Your task to perform on an android device: toggle translation in the chrome app Image 0: 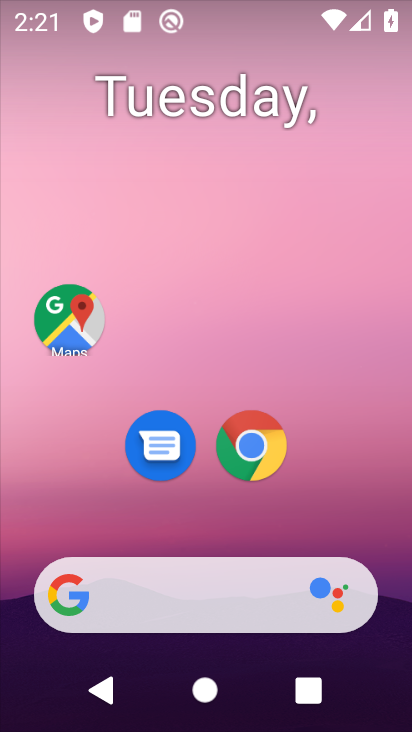
Step 0: drag from (350, 470) to (189, 3)
Your task to perform on an android device: toggle translation in the chrome app Image 1: 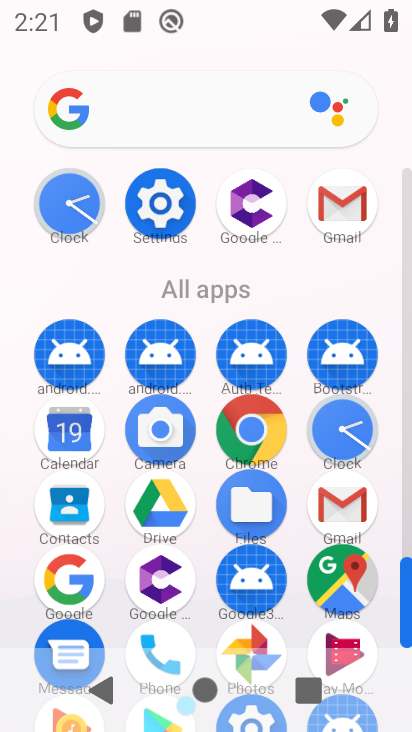
Step 1: click (276, 427)
Your task to perform on an android device: toggle translation in the chrome app Image 2: 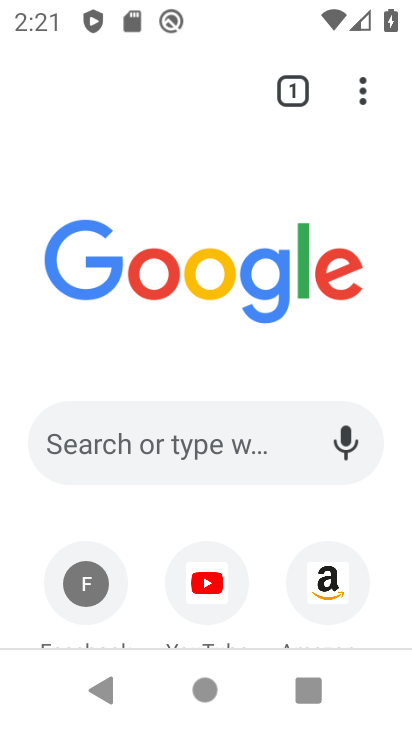
Step 2: drag from (367, 97) to (180, 477)
Your task to perform on an android device: toggle translation in the chrome app Image 3: 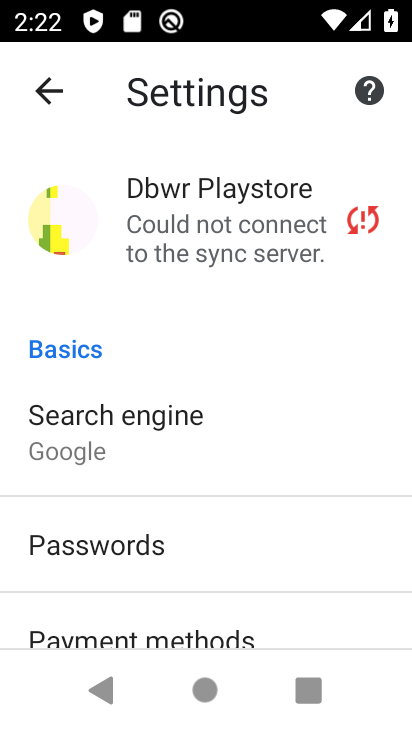
Step 3: drag from (214, 533) to (171, 194)
Your task to perform on an android device: toggle translation in the chrome app Image 4: 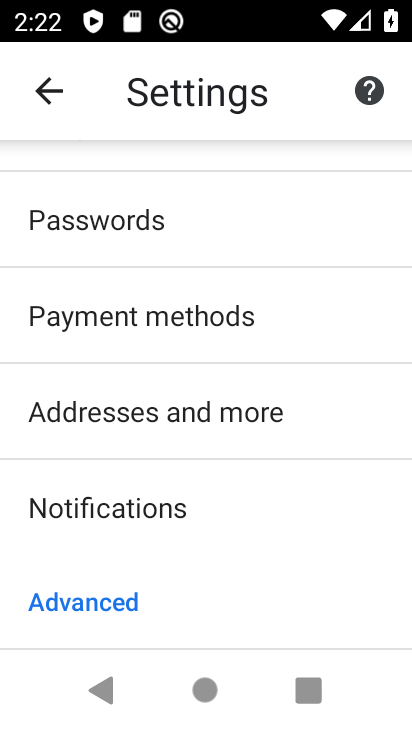
Step 4: drag from (201, 556) to (192, 218)
Your task to perform on an android device: toggle translation in the chrome app Image 5: 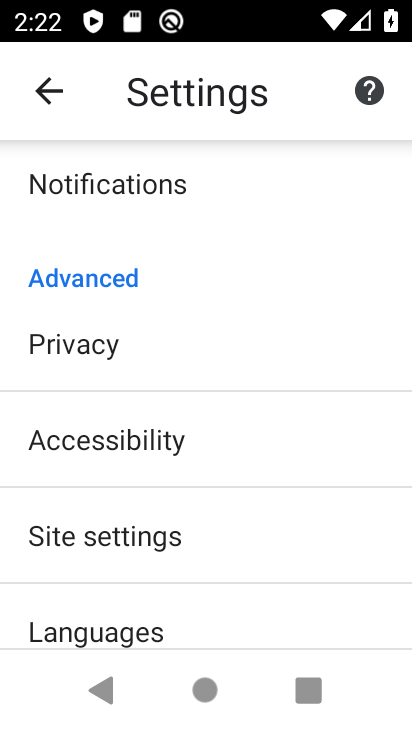
Step 5: drag from (212, 570) to (255, 210)
Your task to perform on an android device: toggle translation in the chrome app Image 6: 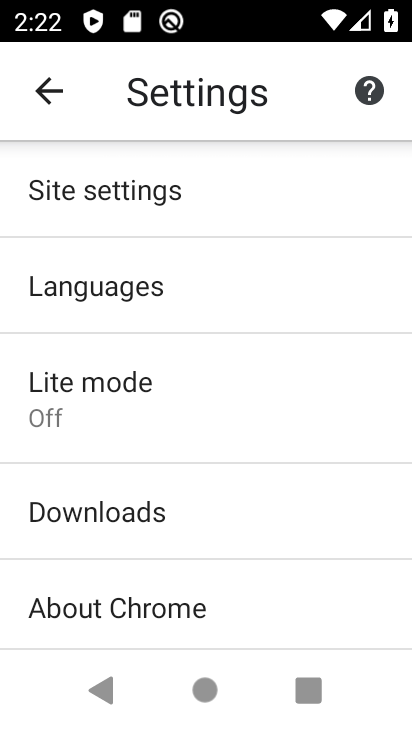
Step 6: click (120, 291)
Your task to perform on an android device: toggle translation in the chrome app Image 7: 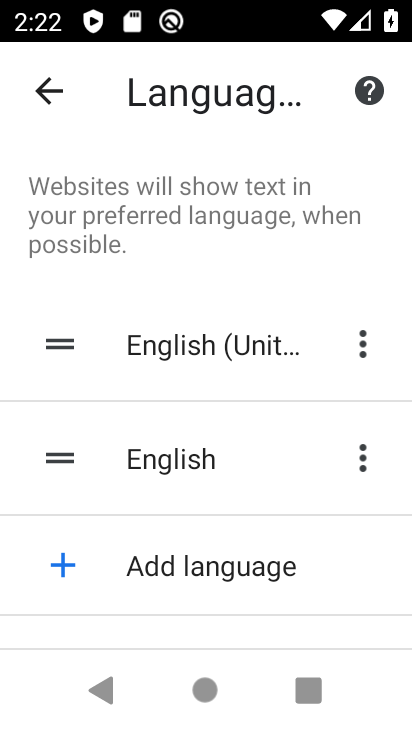
Step 7: drag from (213, 502) to (234, 203)
Your task to perform on an android device: toggle translation in the chrome app Image 8: 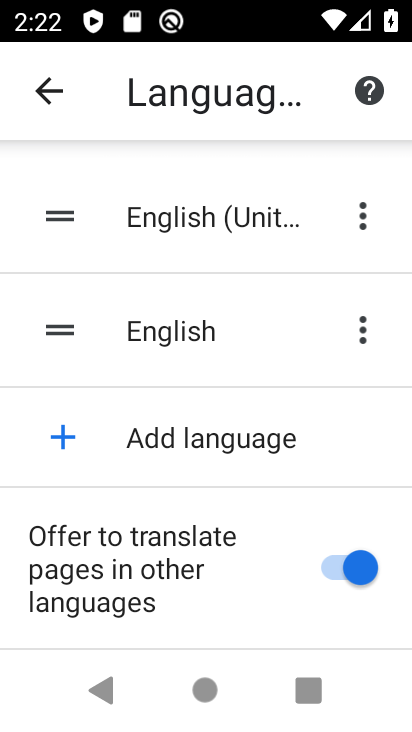
Step 8: click (342, 568)
Your task to perform on an android device: toggle translation in the chrome app Image 9: 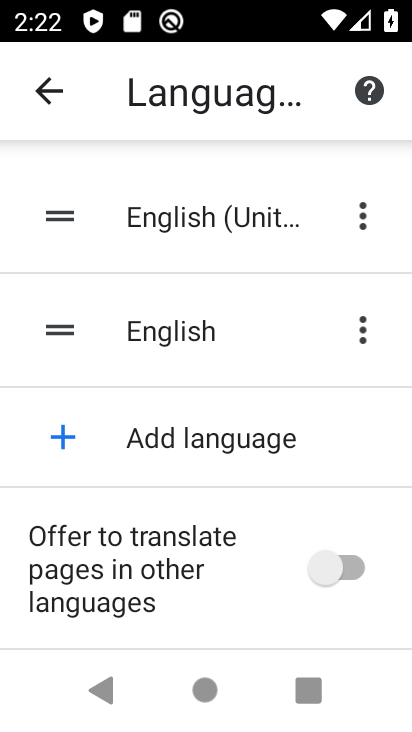
Step 9: task complete